Your task to perform on an android device: Open Google Maps Image 0: 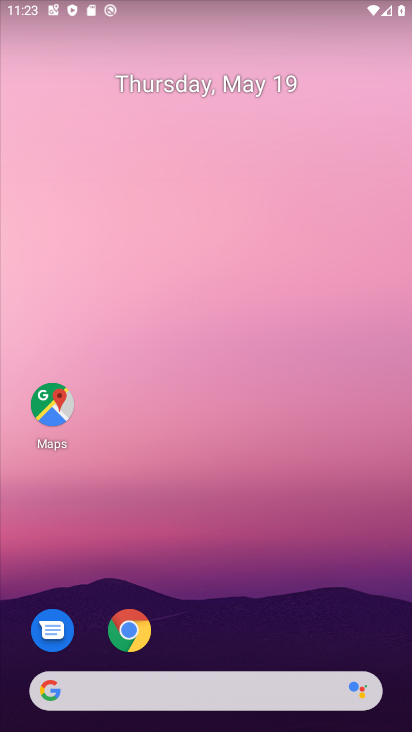
Step 0: click (49, 405)
Your task to perform on an android device: Open Google Maps Image 1: 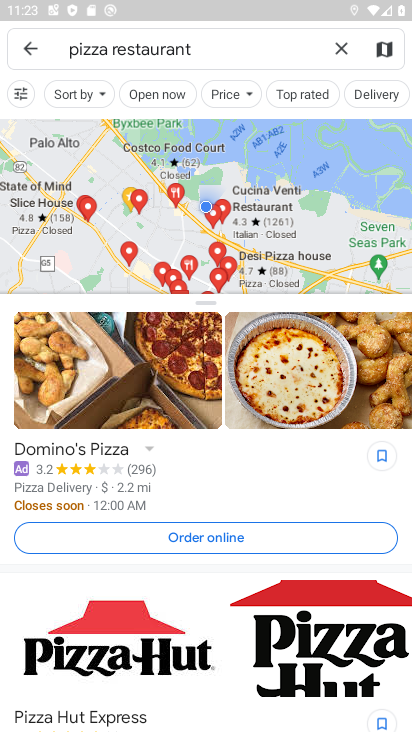
Step 1: click (338, 47)
Your task to perform on an android device: Open Google Maps Image 2: 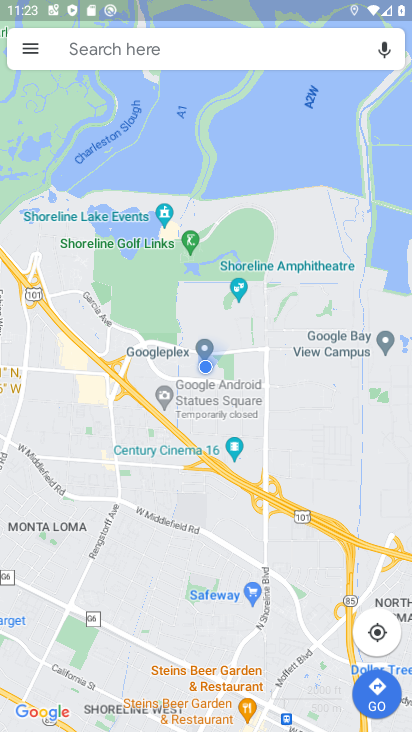
Step 2: task complete